Your task to perform on an android device: Open eBay Image 0: 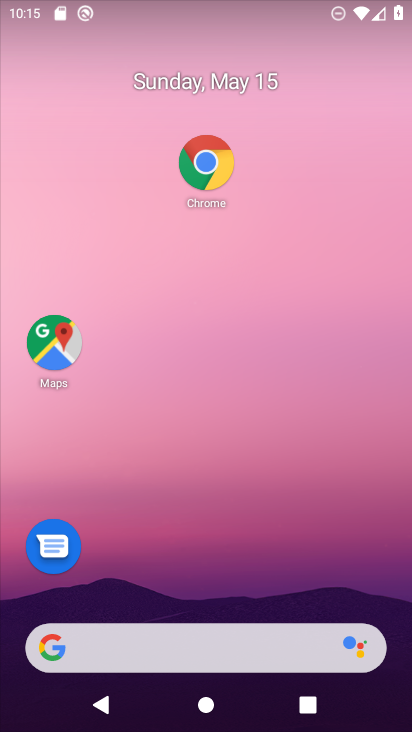
Step 0: drag from (259, 576) to (295, 220)
Your task to perform on an android device: Open eBay Image 1: 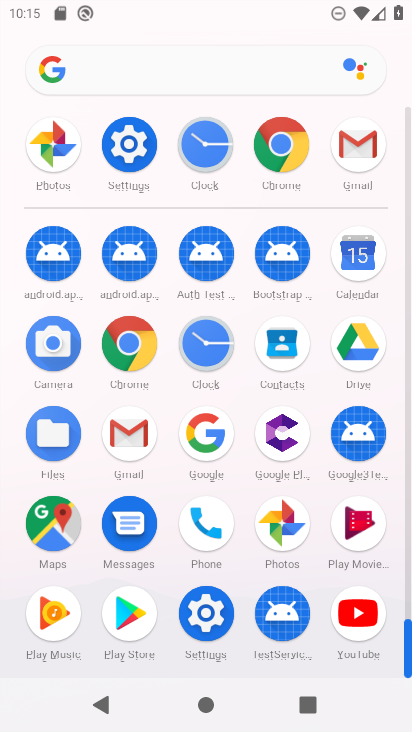
Step 1: click (123, 355)
Your task to perform on an android device: Open eBay Image 2: 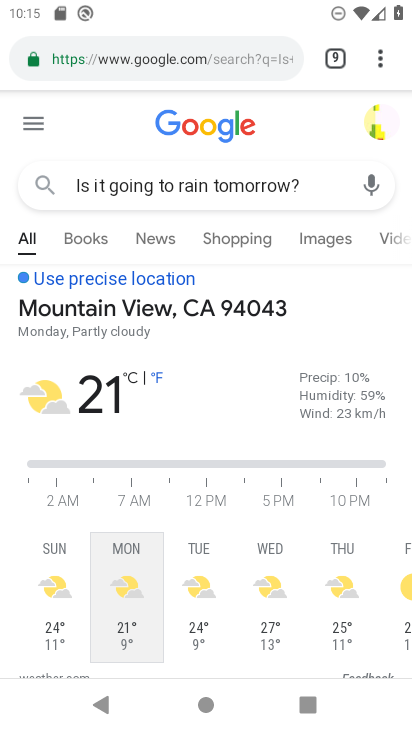
Step 2: click (370, 56)
Your task to perform on an android device: Open eBay Image 3: 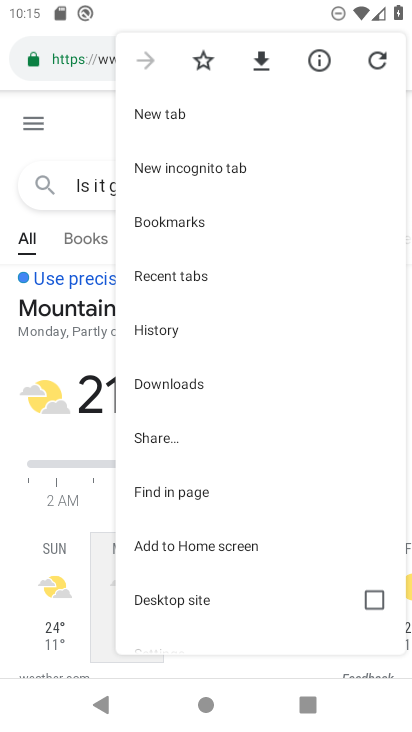
Step 3: click (179, 107)
Your task to perform on an android device: Open eBay Image 4: 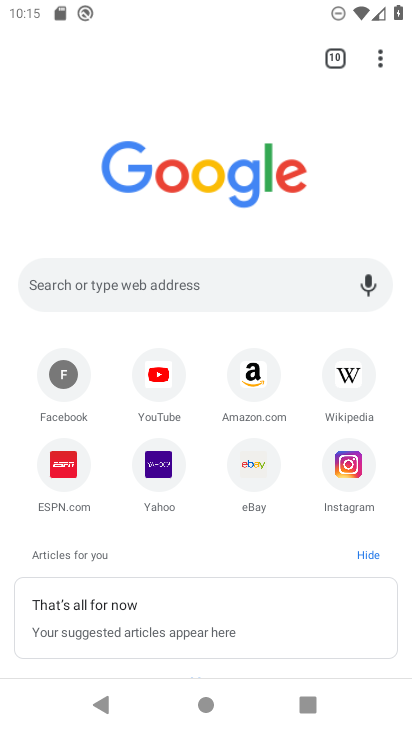
Step 4: click (260, 464)
Your task to perform on an android device: Open eBay Image 5: 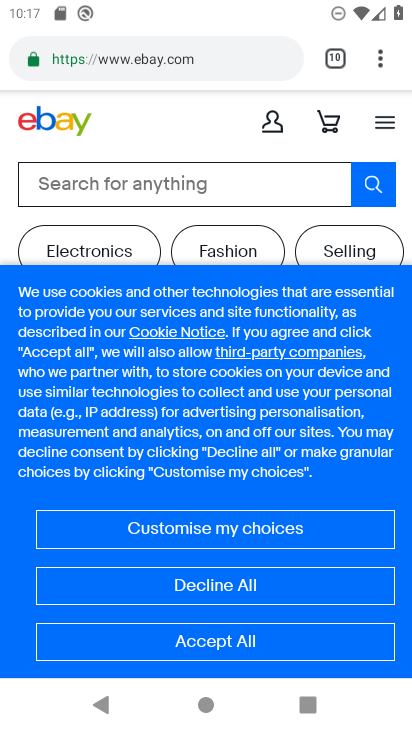
Step 5: task complete